Your task to perform on an android device: open a bookmark in the chrome app Image 0: 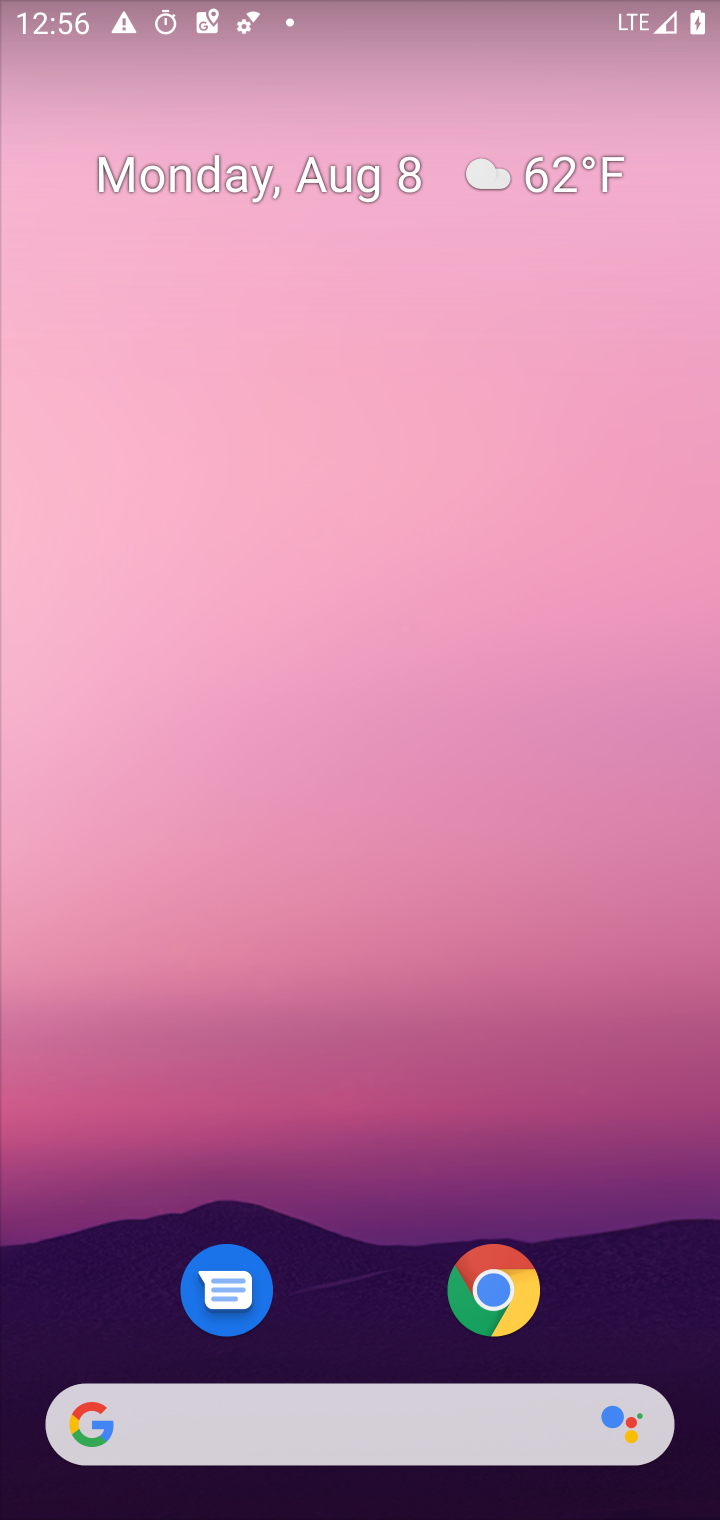
Step 0: click (497, 1293)
Your task to perform on an android device: open a bookmark in the chrome app Image 1: 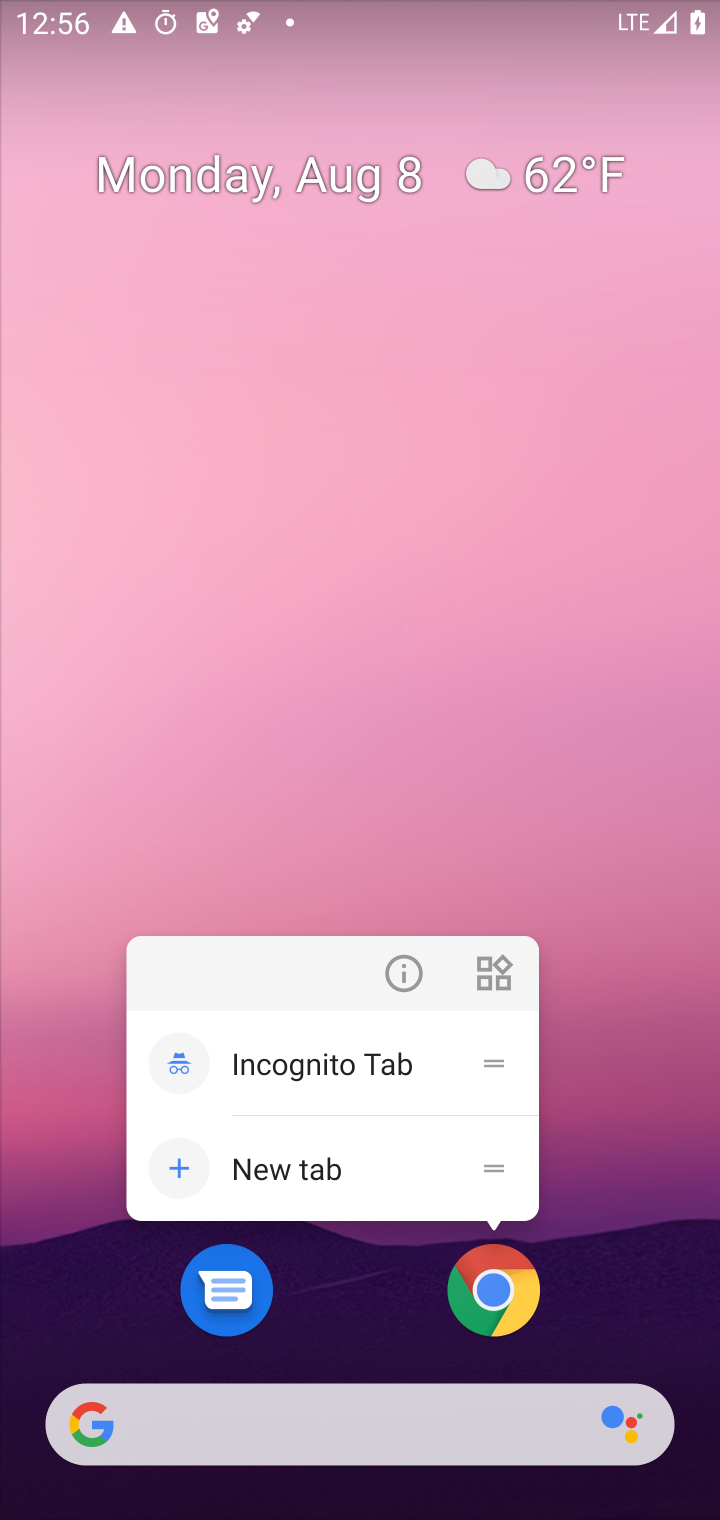
Step 1: click (501, 1258)
Your task to perform on an android device: open a bookmark in the chrome app Image 2: 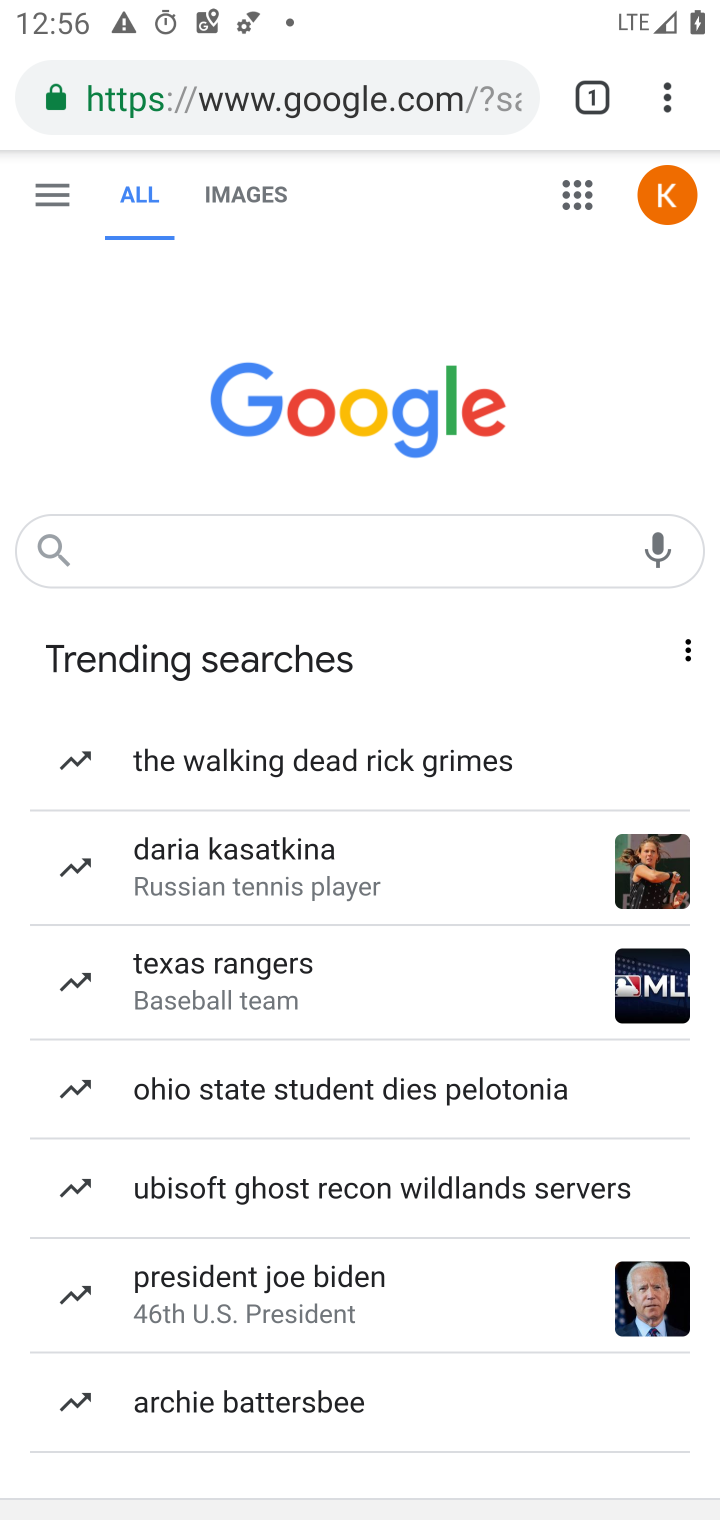
Step 2: click (669, 104)
Your task to perform on an android device: open a bookmark in the chrome app Image 3: 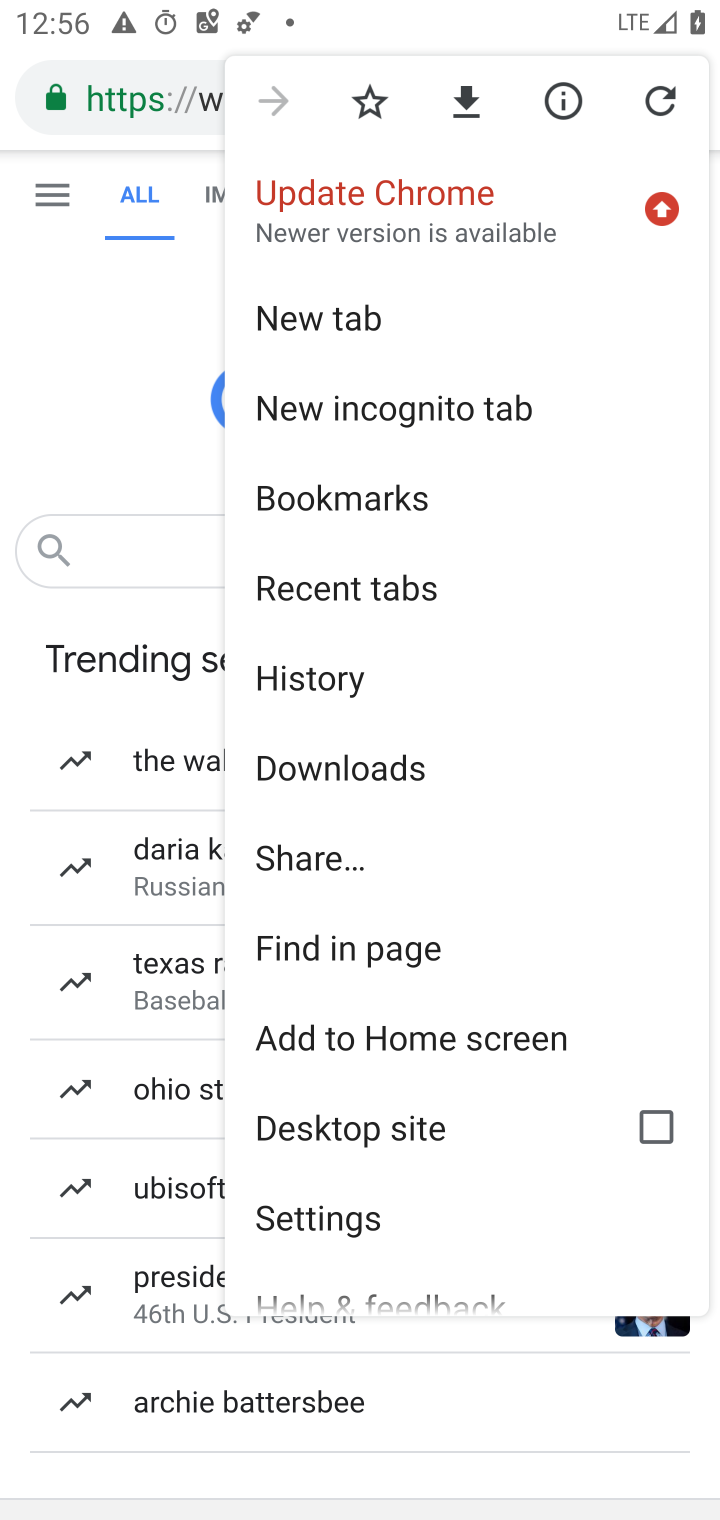
Step 3: click (388, 481)
Your task to perform on an android device: open a bookmark in the chrome app Image 4: 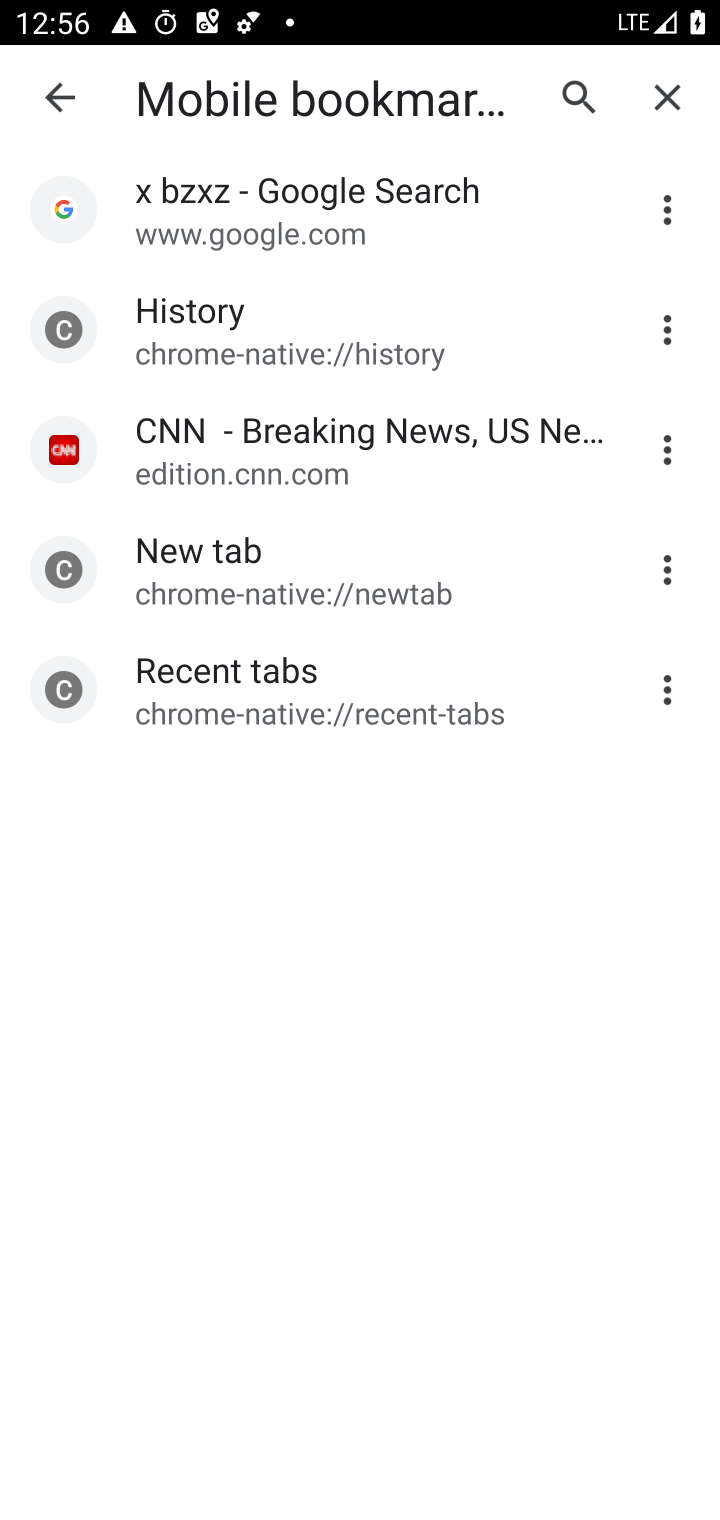
Step 4: click (357, 451)
Your task to perform on an android device: open a bookmark in the chrome app Image 5: 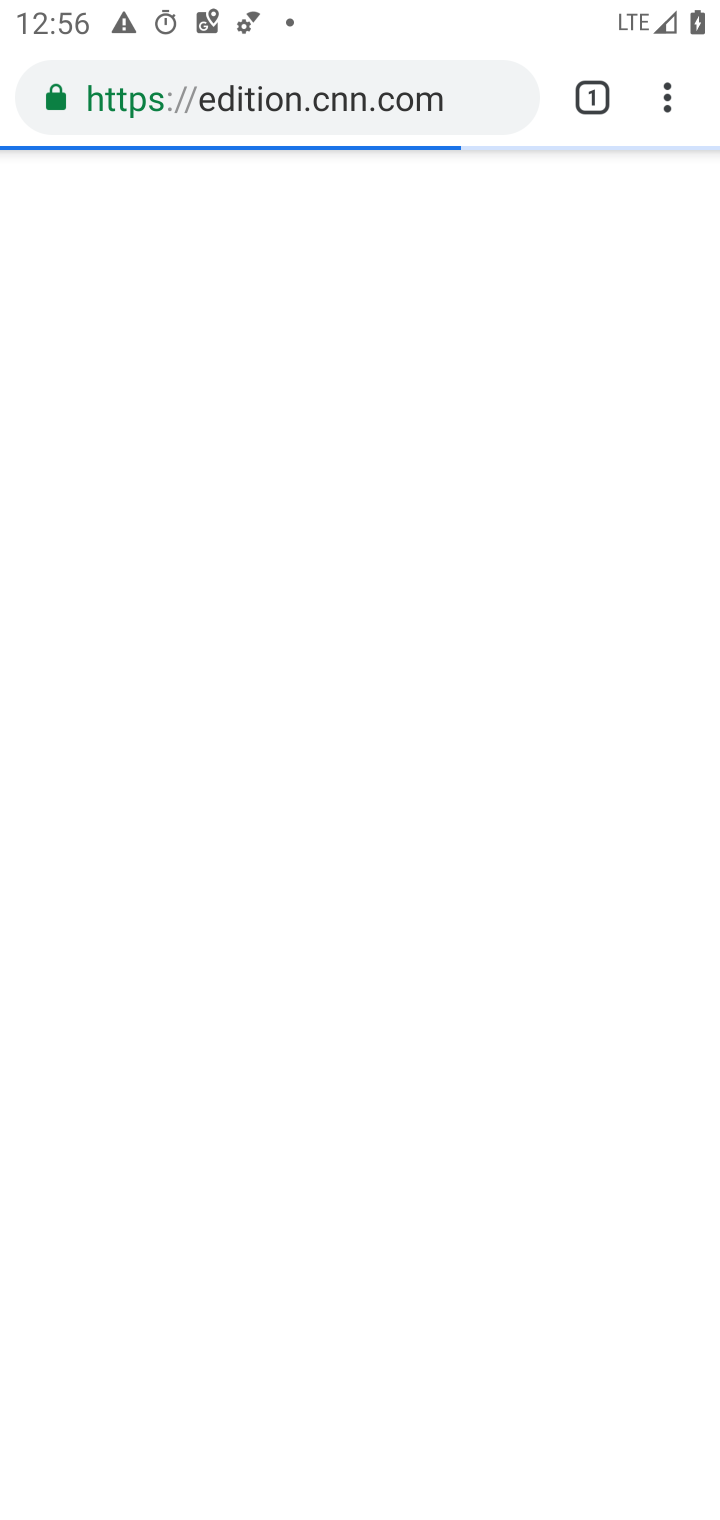
Step 5: task complete